Your task to perform on an android device: Open the Play Movies app and select the watchlist tab. Image 0: 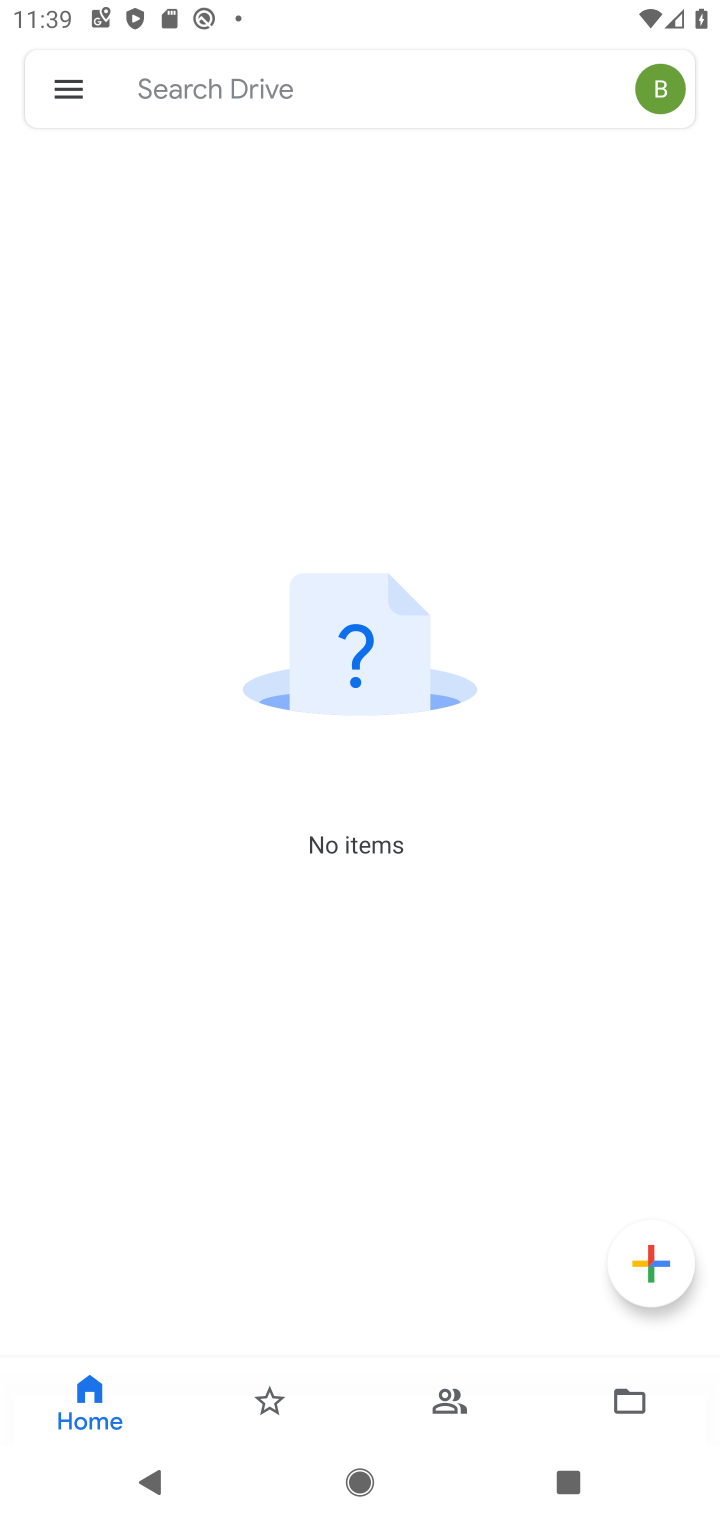
Step 0: press back button
Your task to perform on an android device: Open the Play Movies app and select the watchlist tab. Image 1: 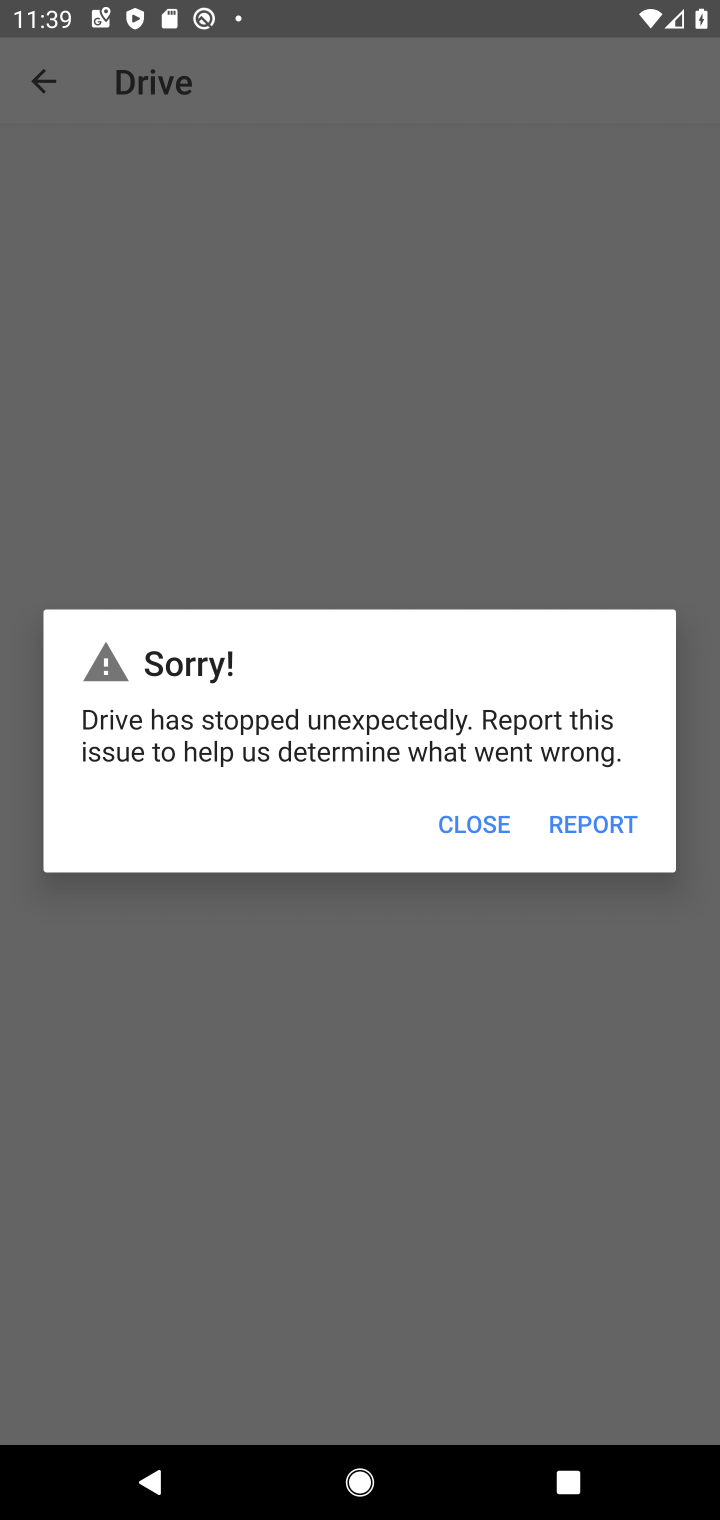
Step 1: press back button
Your task to perform on an android device: Open the Play Movies app and select the watchlist tab. Image 2: 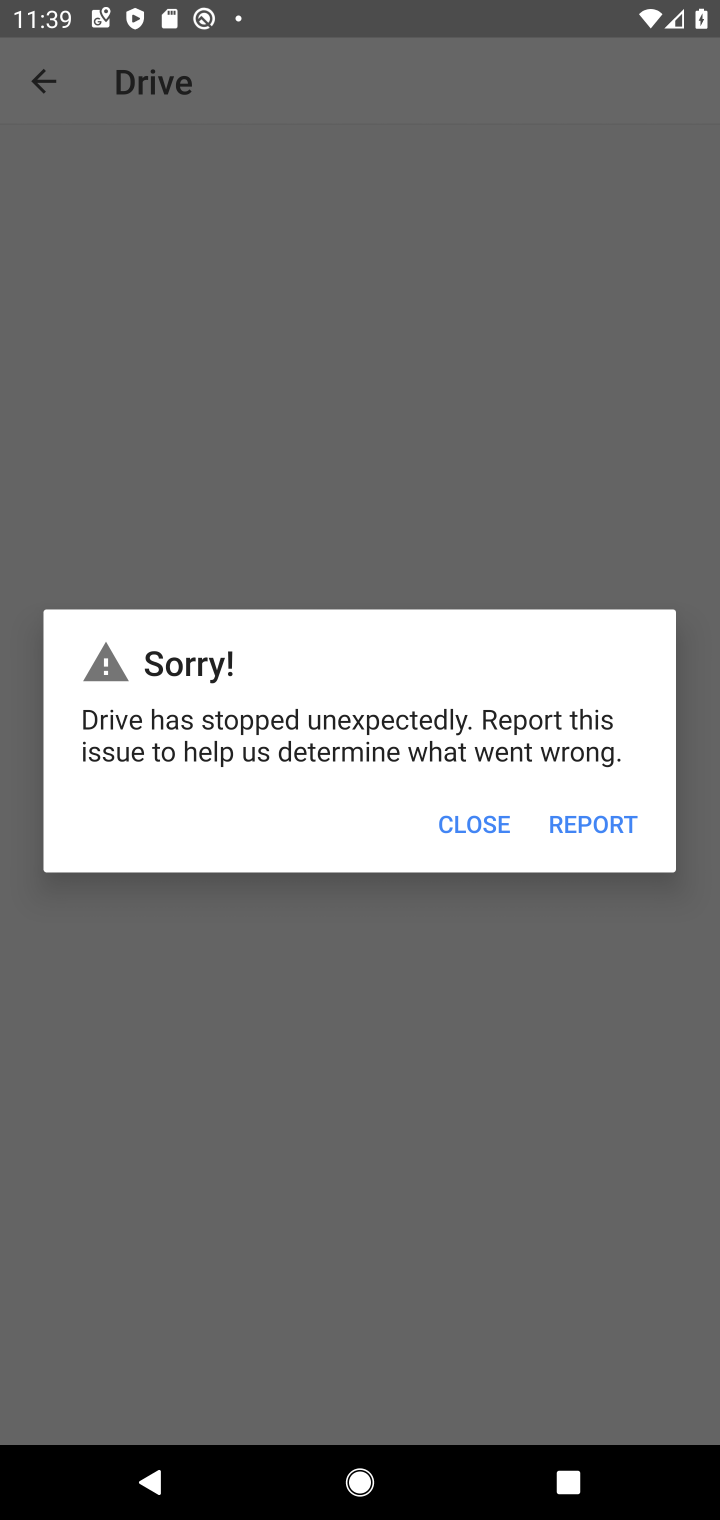
Step 2: press home button
Your task to perform on an android device: Open the Play Movies app and select the watchlist tab. Image 3: 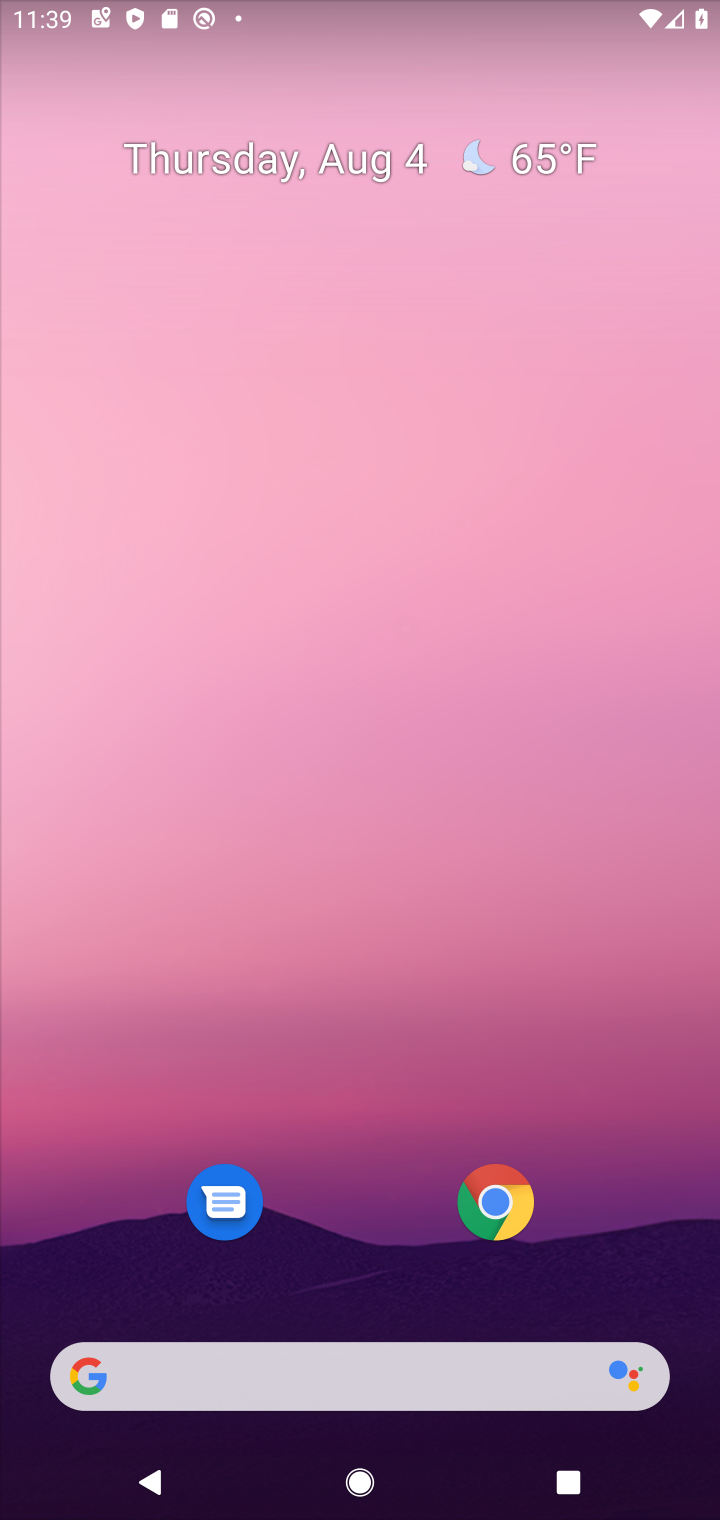
Step 3: drag from (366, 1253) to (515, 6)
Your task to perform on an android device: Open the Play Movies app and select the watchlist tab. Image 4: 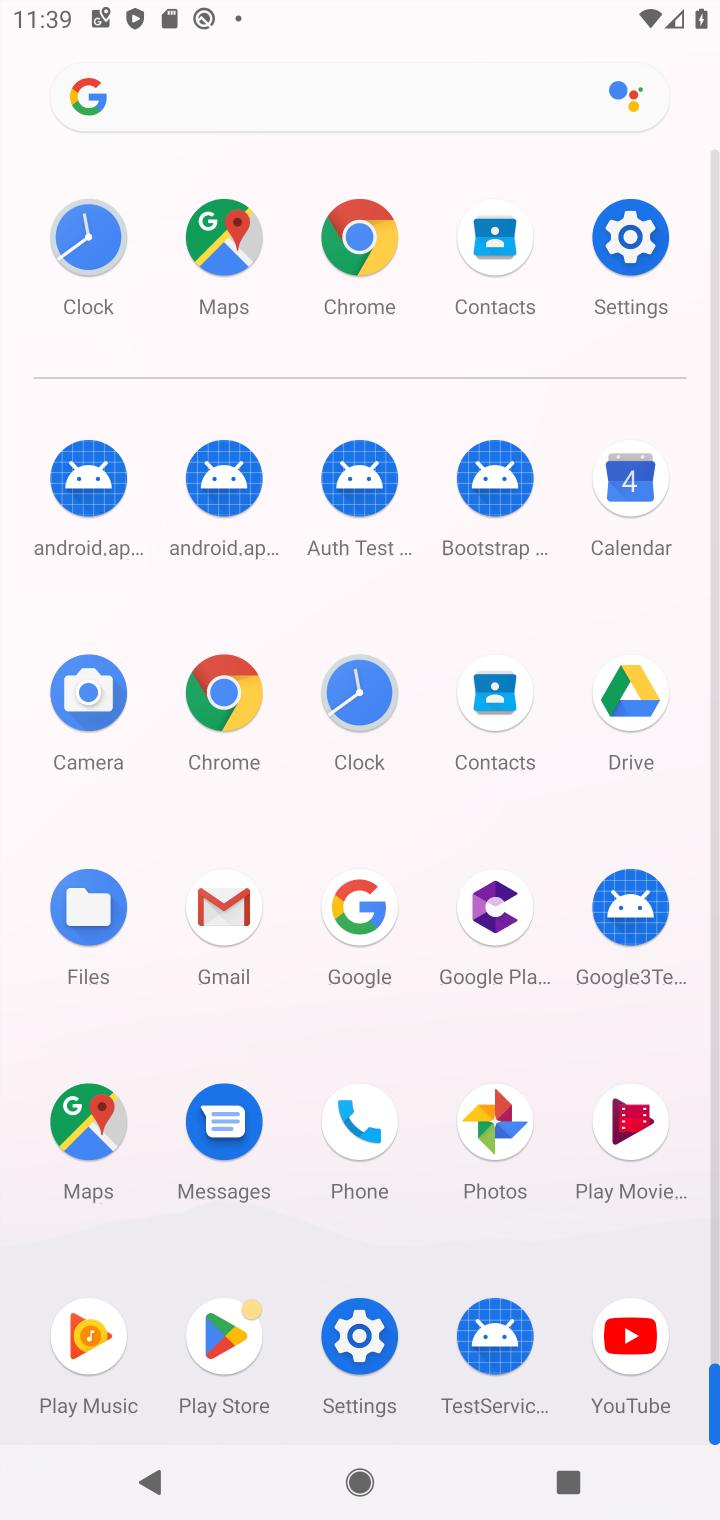
Step 4: click (629, 1109)
Your task to perform on an android device: Open the Play Movies app and select the watchlist tab. Image 5: 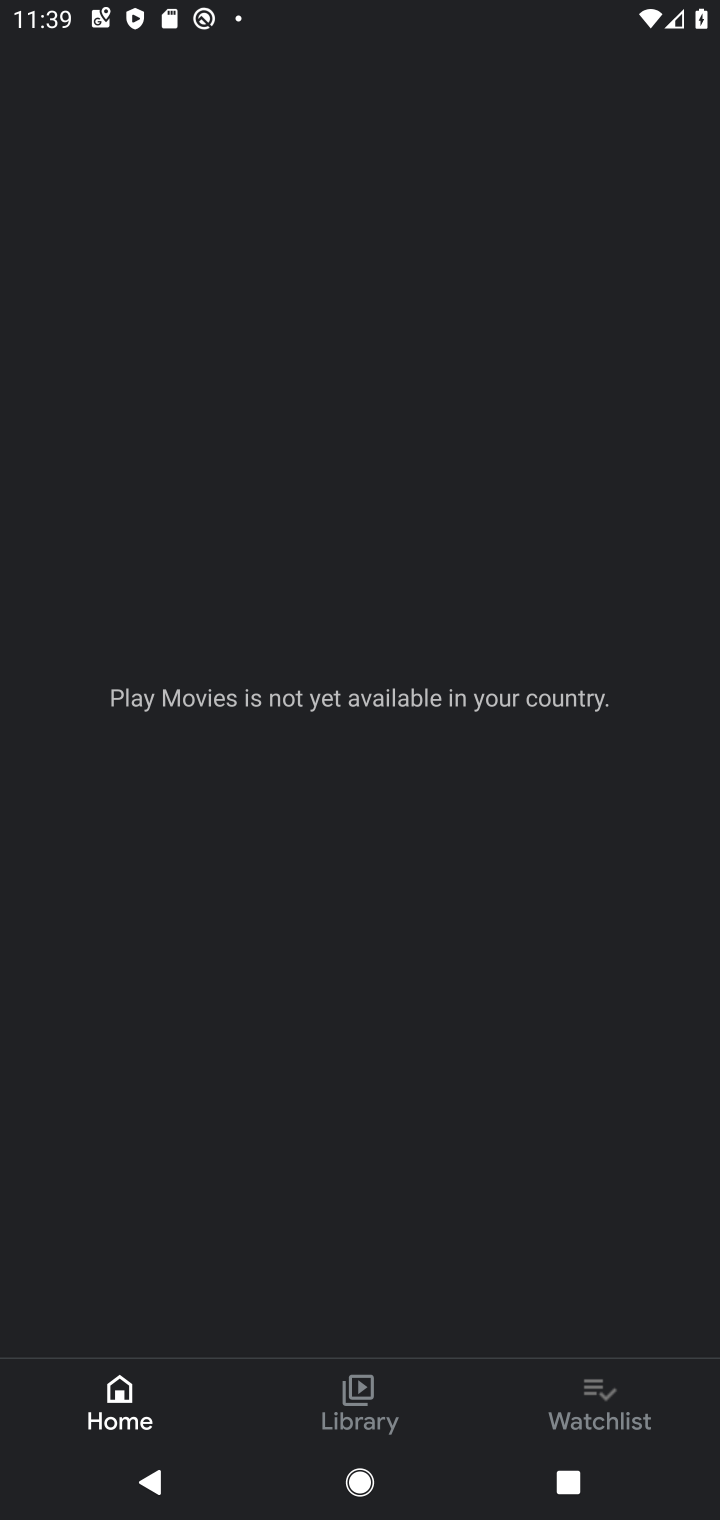
Step 5: click (593, 1413)
Your task to perform on an android device: Open the Play Movies app and select the watchlist tab. Image 6: 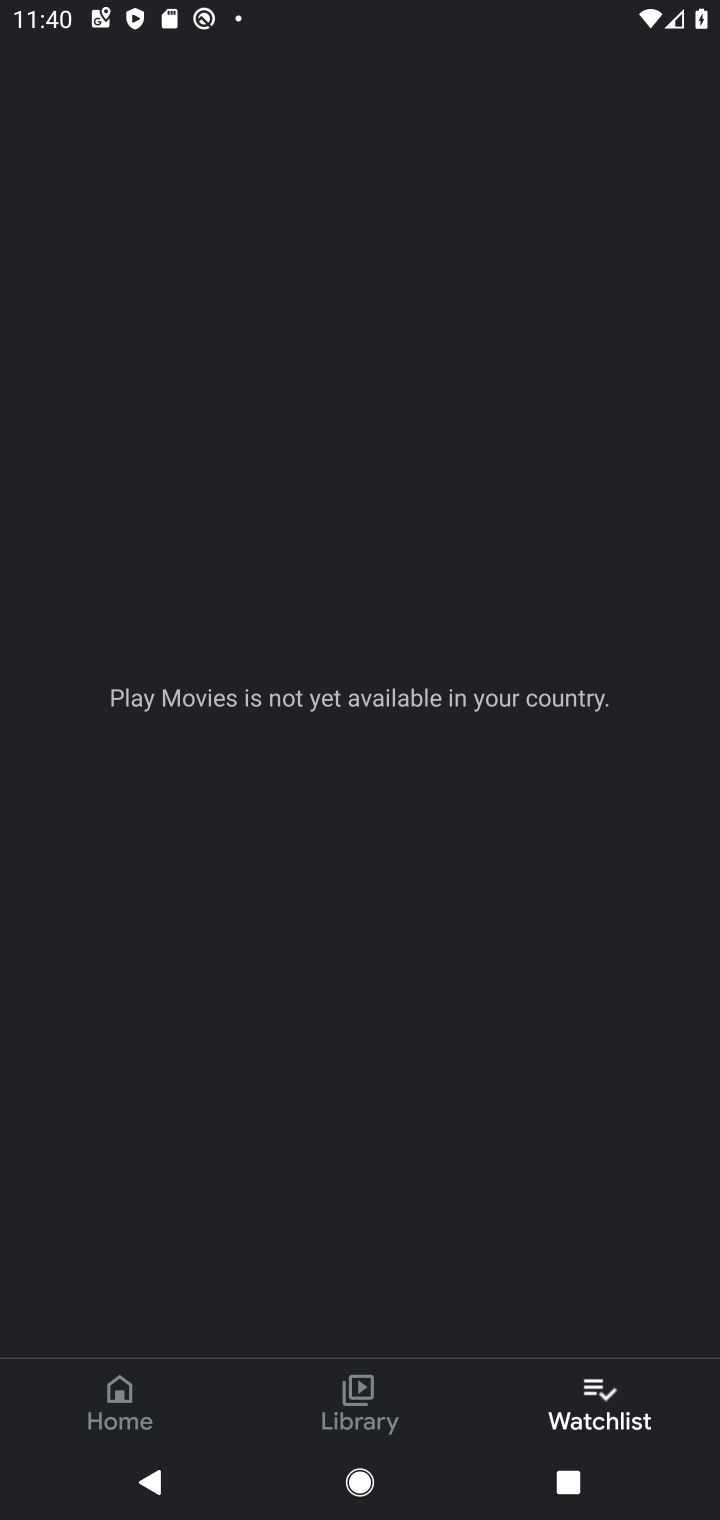
Step 6: task complete